Your task to perform on an android device: Go to ESPN.com Image 0: 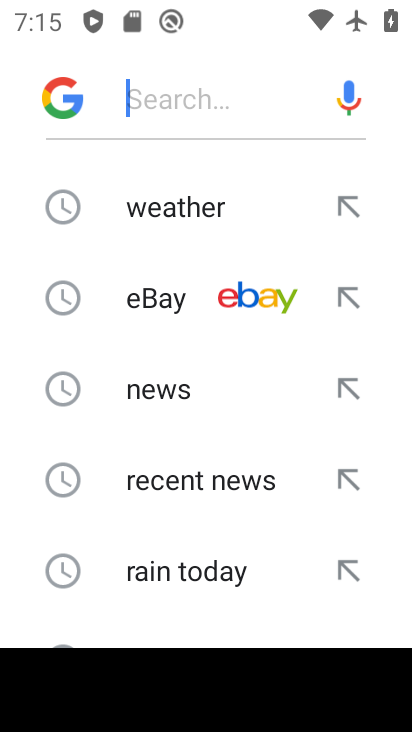
Step 0: type "espn.com"
Your task to perform on an android device: Go to ESPN.com Image 1: 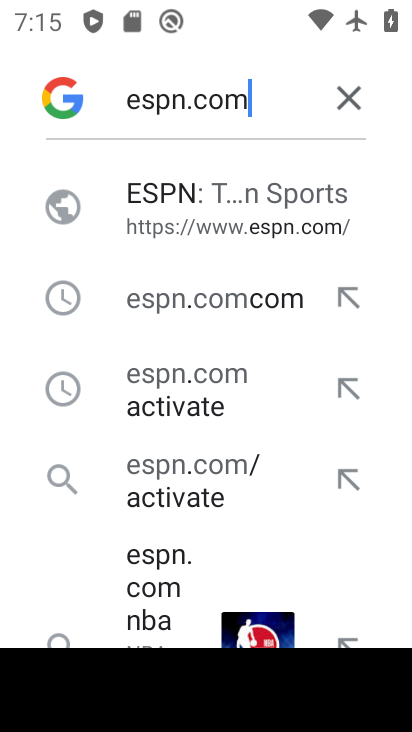
Step 1: click (181, 188)
Your task to perform on an android device: Go to ESPN.com Image 2: 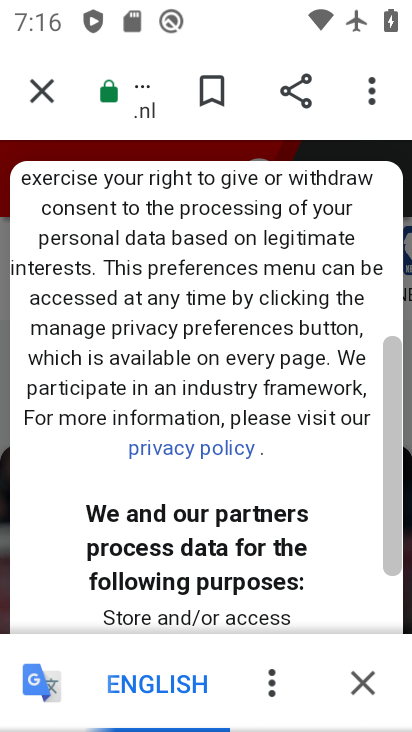
Step 2: task complete